Your task to perform on an android device: Search for bose soundlink mini on ebay.com, select the first entry, add it to the cart, then select checkout. Image 0: 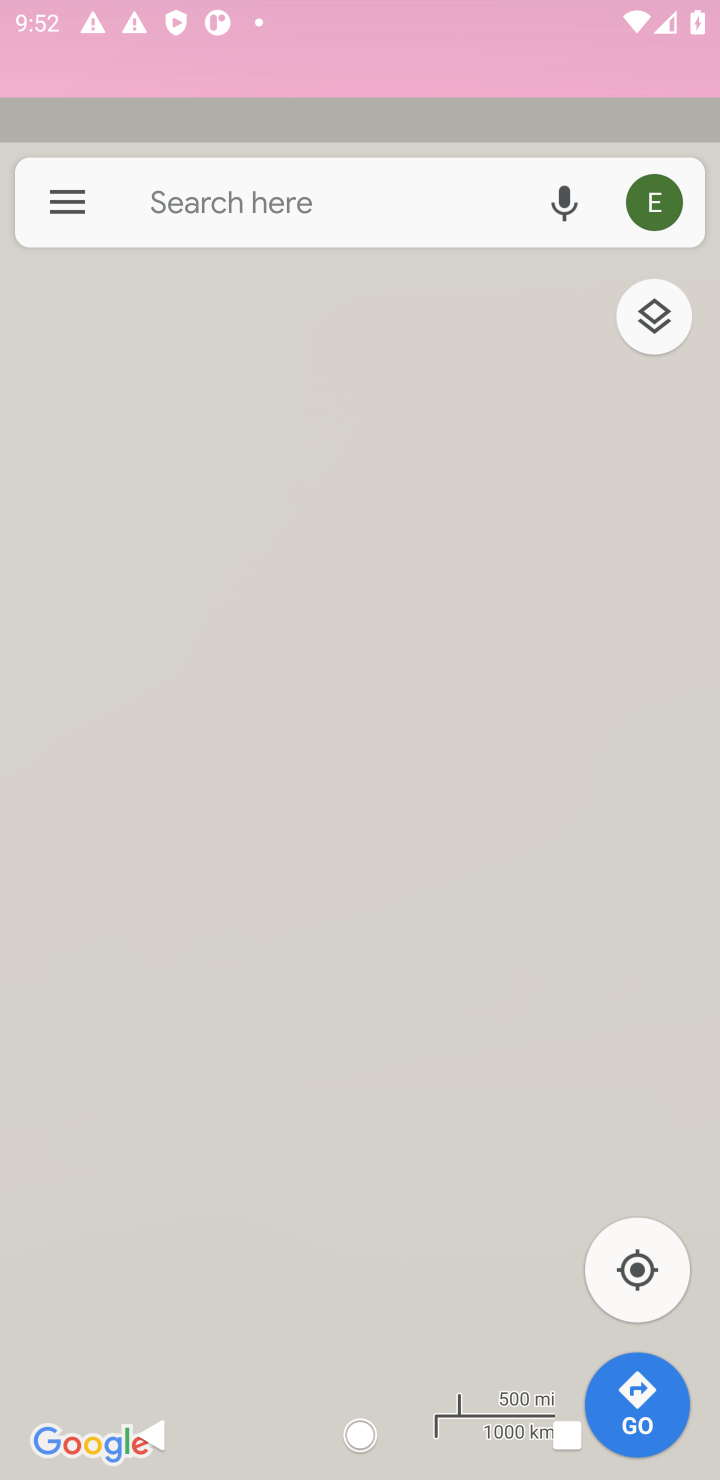
Step 0: click (427, 1244)
Your task to perform on an android device: Search for bose soundlink mini on ebay.com, select the first entry, add it to the cart, then select checkout. Image 1: 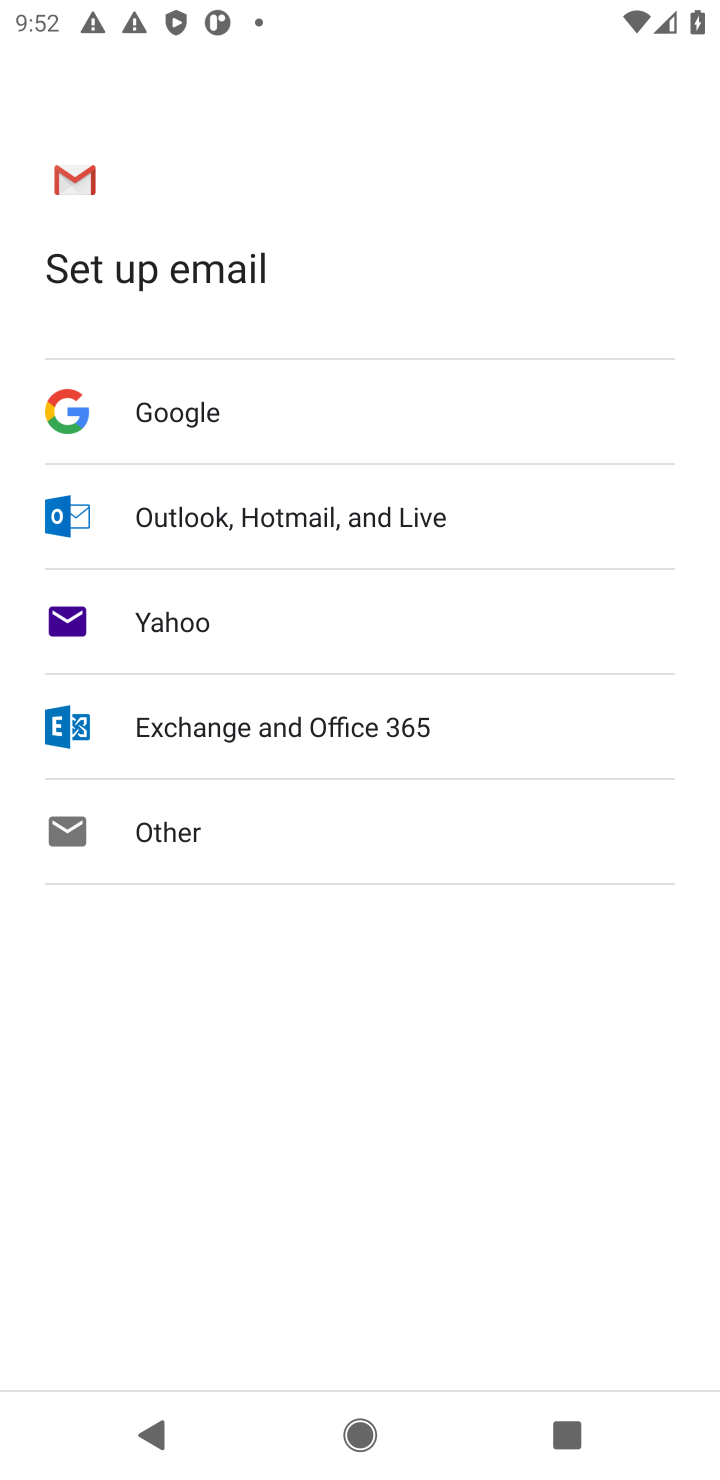
Step 1: press home button
Your task to perform on an android device: Search for bose soundlink mini on ebay.com, select the first entry, add it to the cart, then select checkout. Image 2: 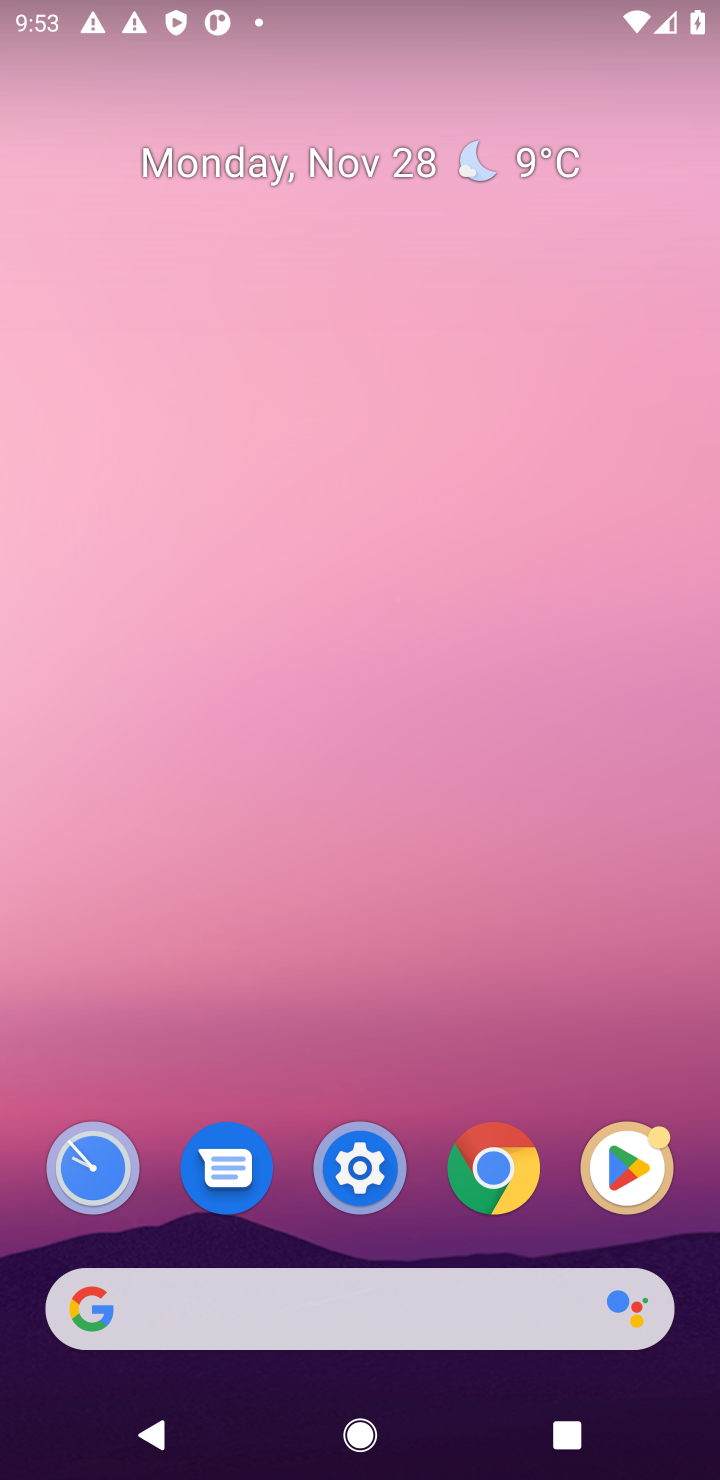
Step 2: click (332, 1277)
Your task to perform on an android device: Search for bose soundlink mini on ebay.com, select the first entry, add it to the cart, then select checkout. Image 3: 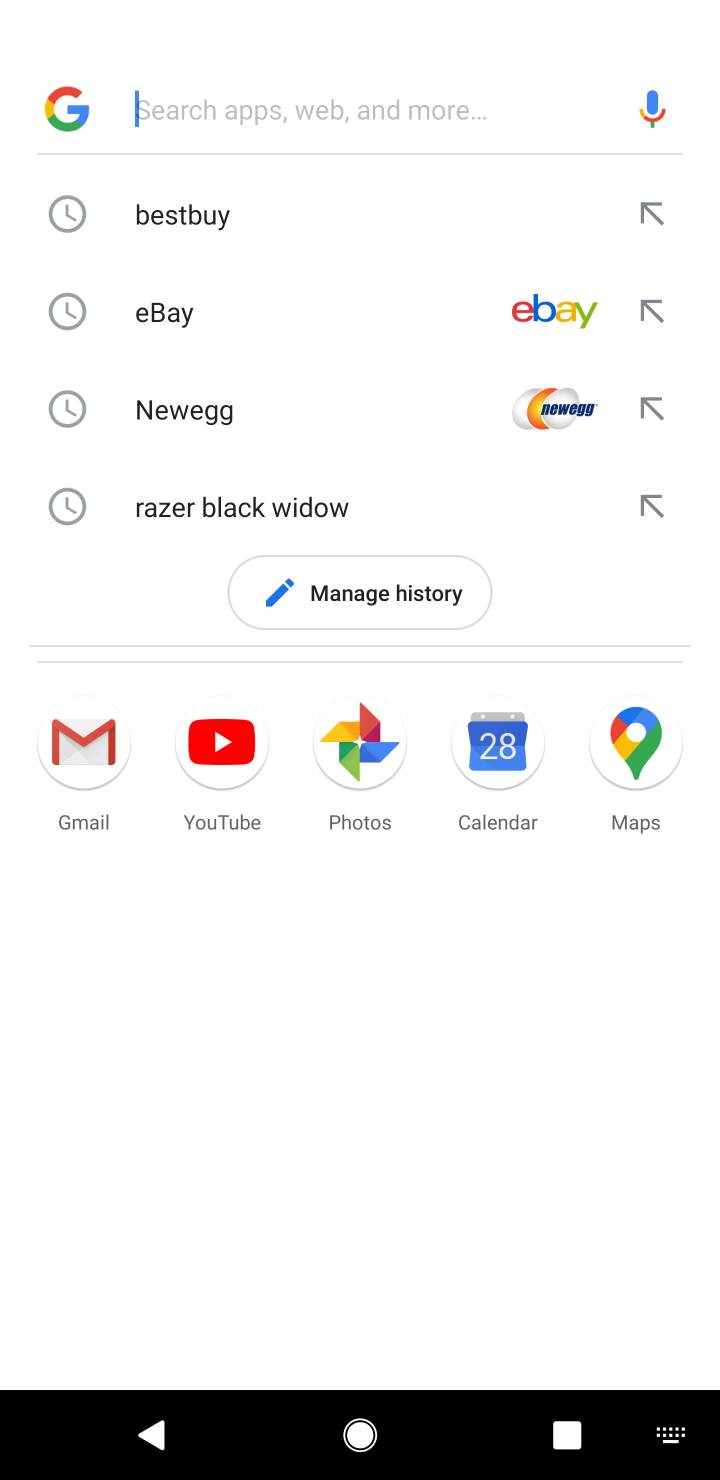
Step 3: click (282, 295)
Your task to perform on an android device: Search for bose soundlink mini on ebay.com, select the first entry, add it to the cart, then select checkout. Image 4: 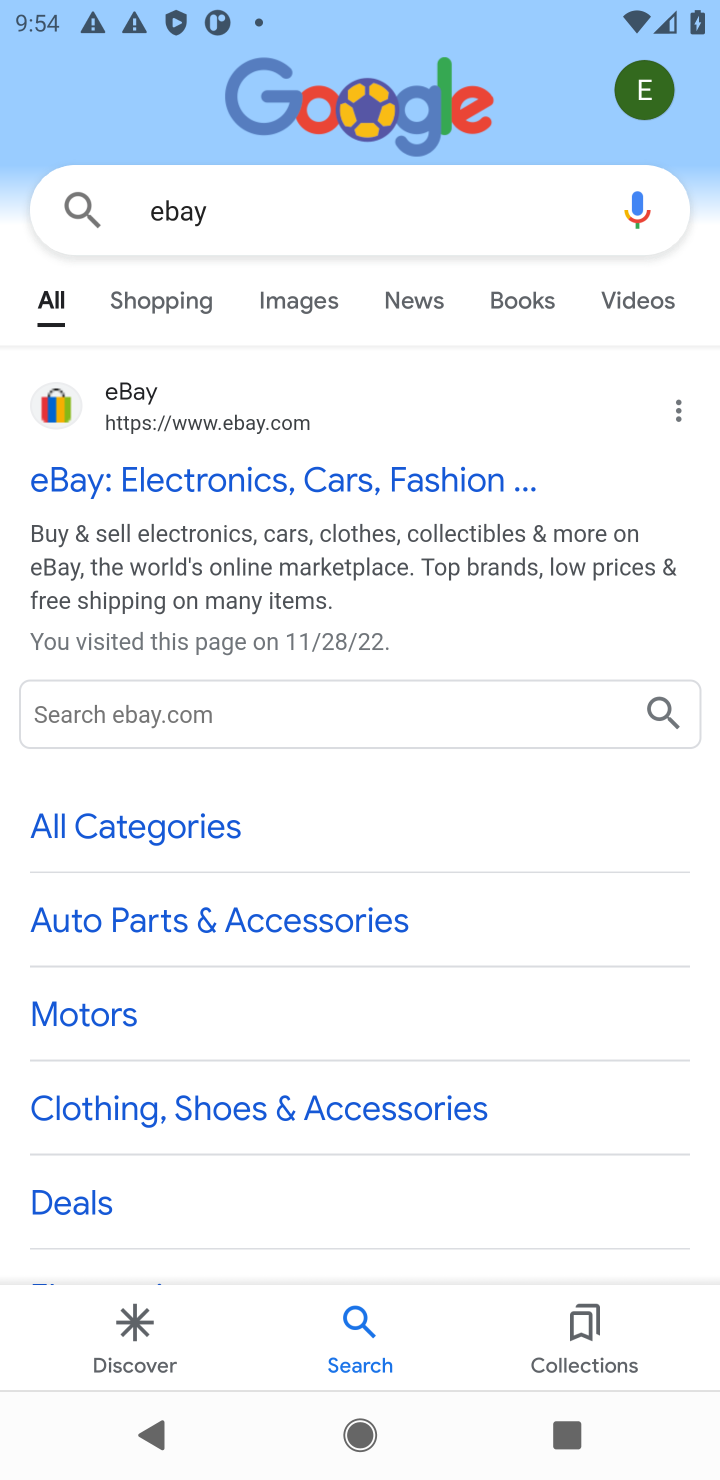
Step 4: click (338, 472)
Your task to perform on an android device: Search for bose soundlink mini on ebay.com, select the first entry, add it to the cart, then select checkout. Image 5: 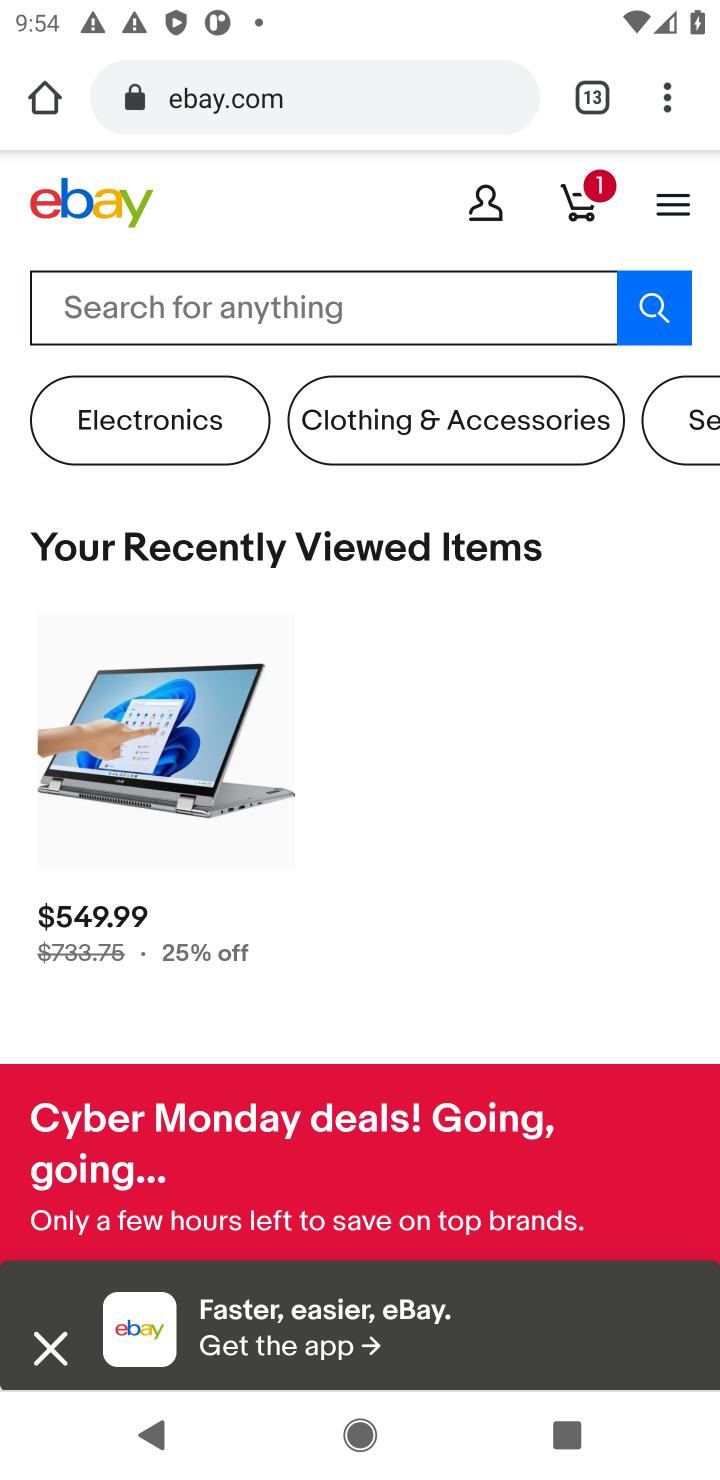
Step 5: task complete